Your task to perform on an android device: Show me popular games on the Play Store Image 0: 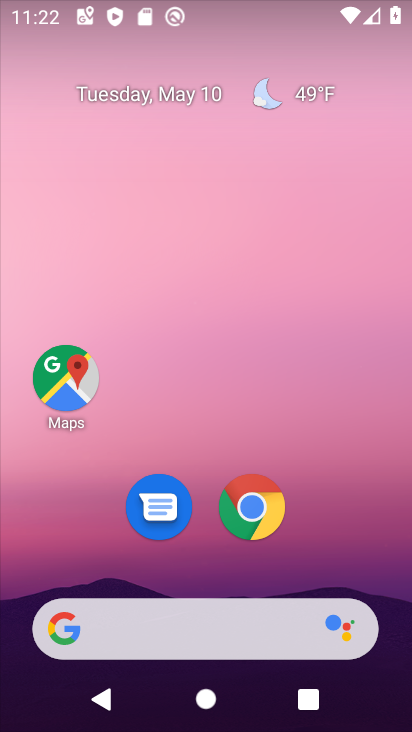
Step 0: drag from (229, 577) to (206, 130)
Your task to perform on an android device: Show me popular games on the Play Store Image 1: 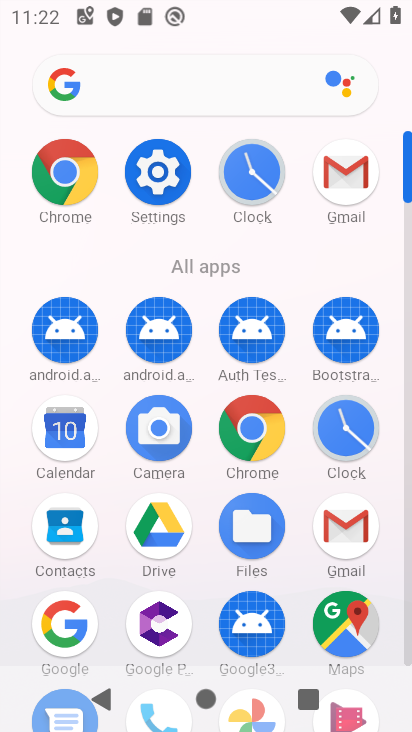
Step 1: drag from (199, 525) to (234, 192)
Your task to perform on an android device: Show me popular games on the Play Store Image 2: 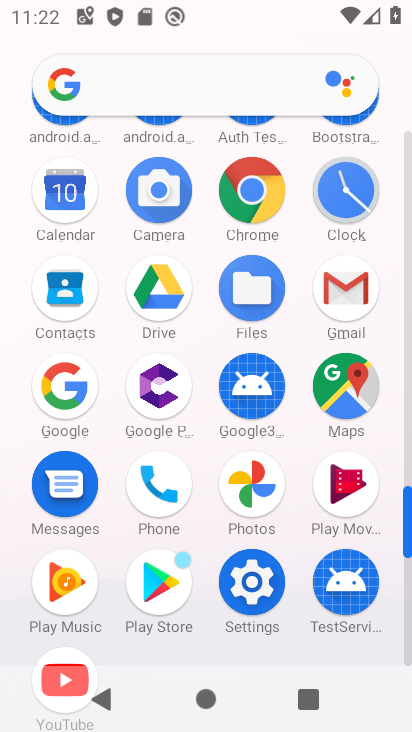
Step 2: click (148, 582)
Your task to perform on an android device: Show me popular games on the Play Store Image 3: 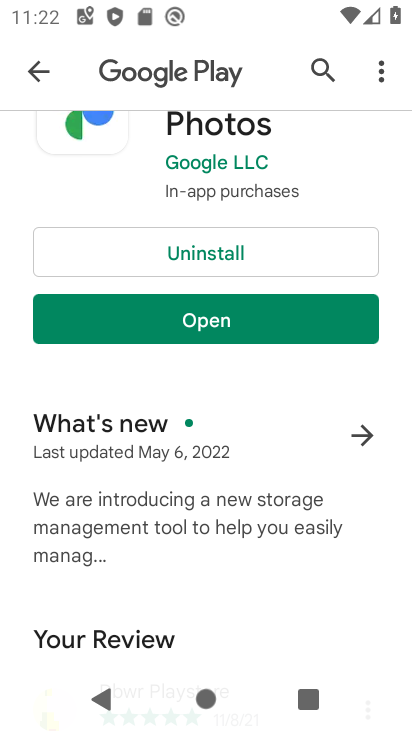
Step 3: drag from (210, 173) to (230, 330)
Your task to perform on an android device: Show me popular games on the Play Store Image 4: 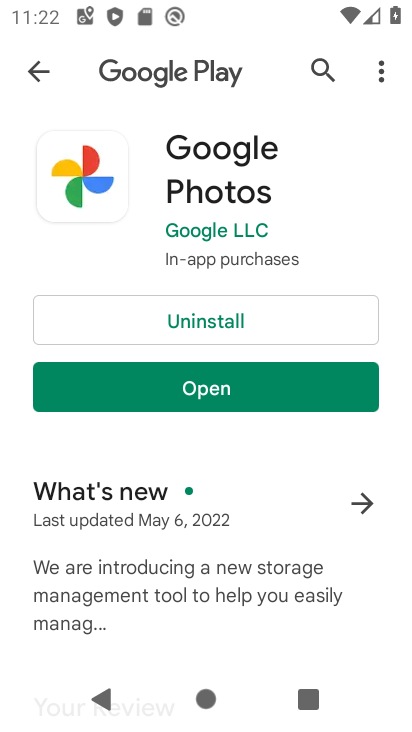
Step 4: press back button
Your task to perform on an android device: Show me popular games on the Play Store Image 5: 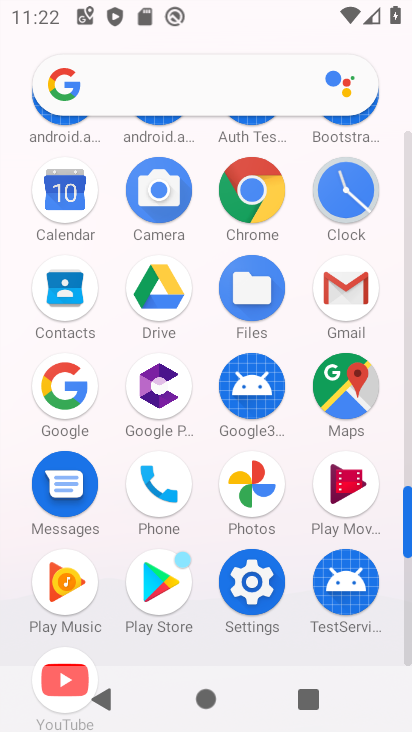
Step 5: click (157, 582)
Your task to perform on an android device: Show me popular games on the Play Store Image 6: 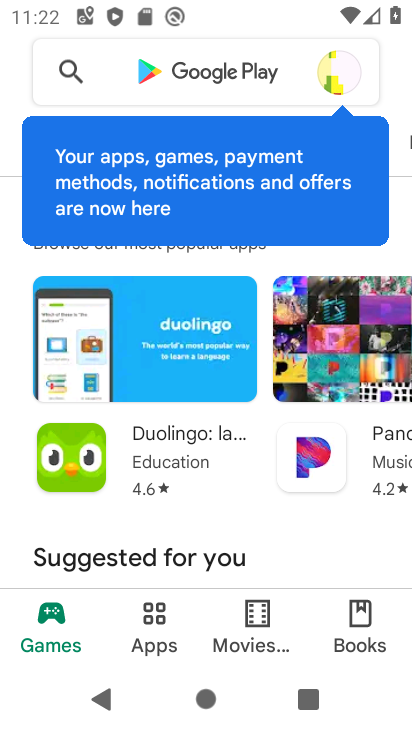
Step 6: click (208, 75)
Your task to perform on an android device: Show me popular games on the Play Store Image 7: 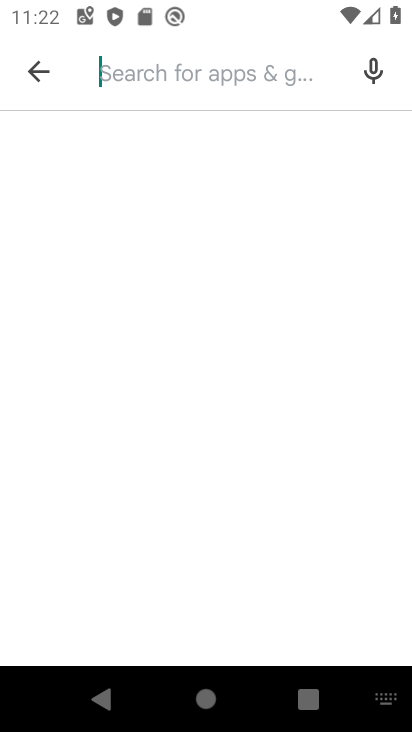
Step 7: press back button
Your task to perform on an android device: Show me popular games on the Play Store Image 8: 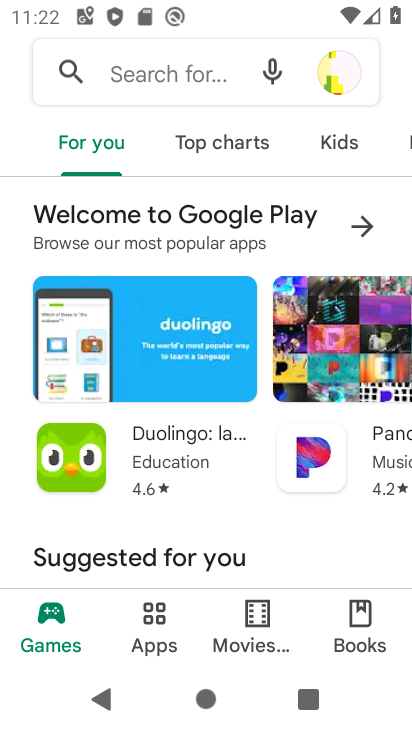
Step 8: drag from (225, 490) to (268, 46)
Your task to perform on an android device: Show me popular games on the Play Store Image 9: 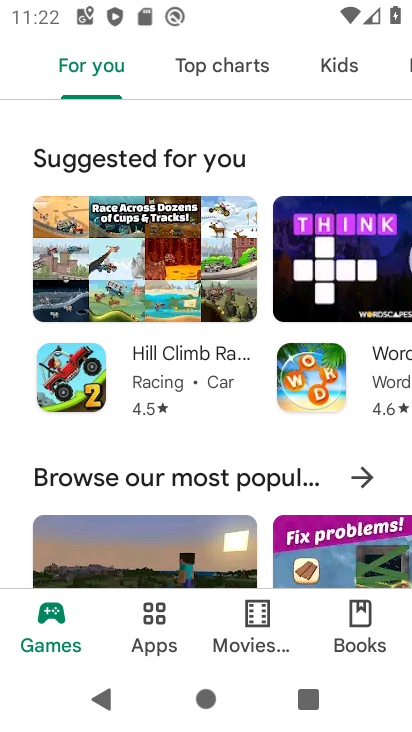
Step 9: click (271, 476)
Your task to perform on an android device: Show me popular games on the Play Store Image 10: 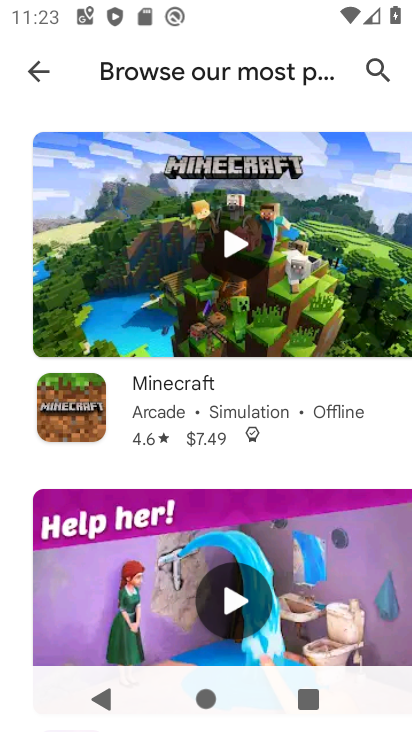
Step 10: task complete